Your task to perform on an android device: uninstall "Spotify" Image 0: 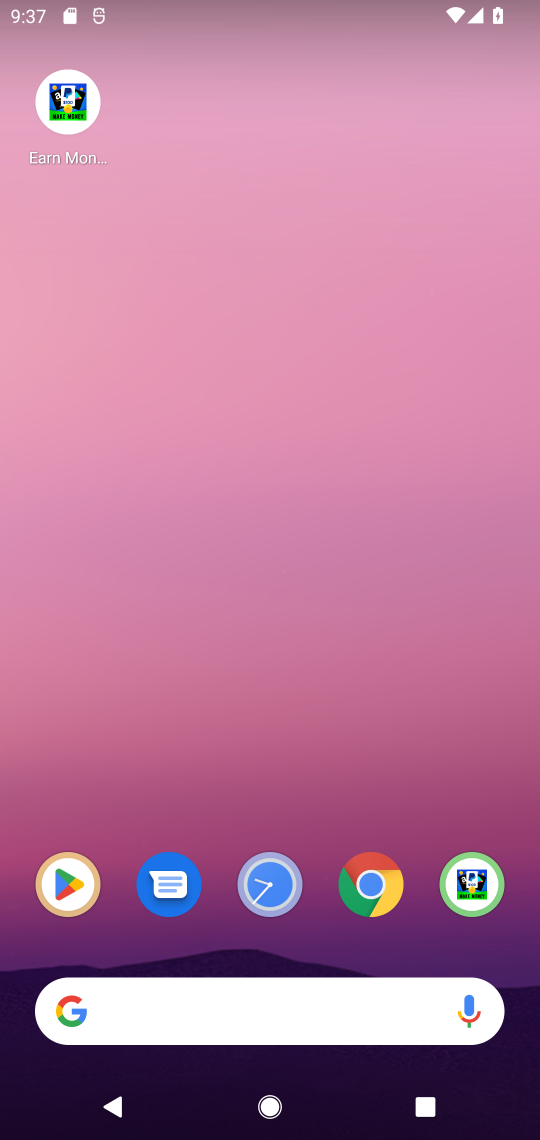
Step 0: click (70, 874)
Your task to perform on an android device: uninstall "Spotify" Image 1: 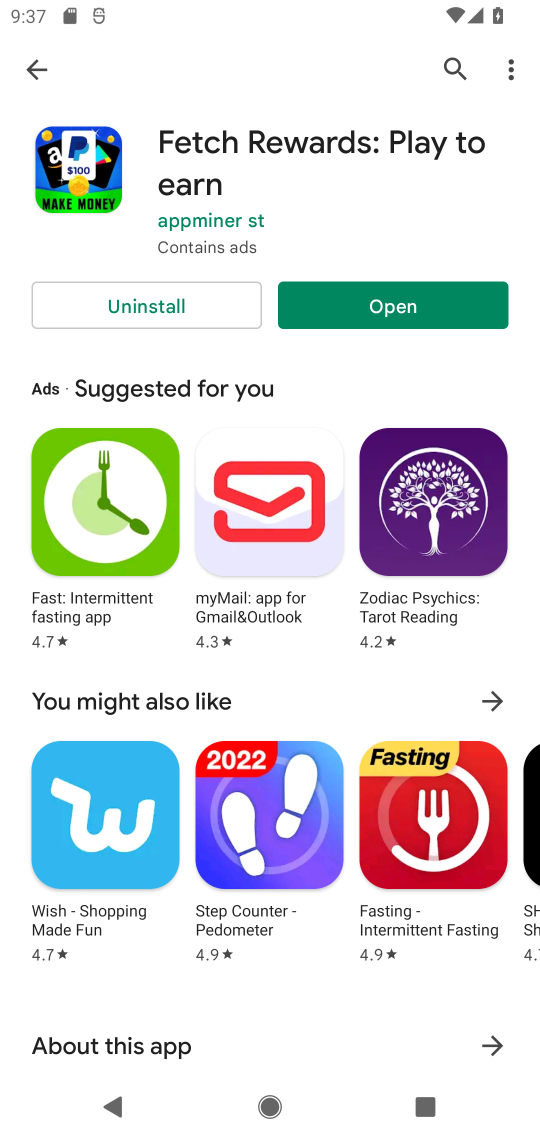
Step 1: click (35, 55)
Your task to perform on an android device: uninstall "Spotify" Image 2: 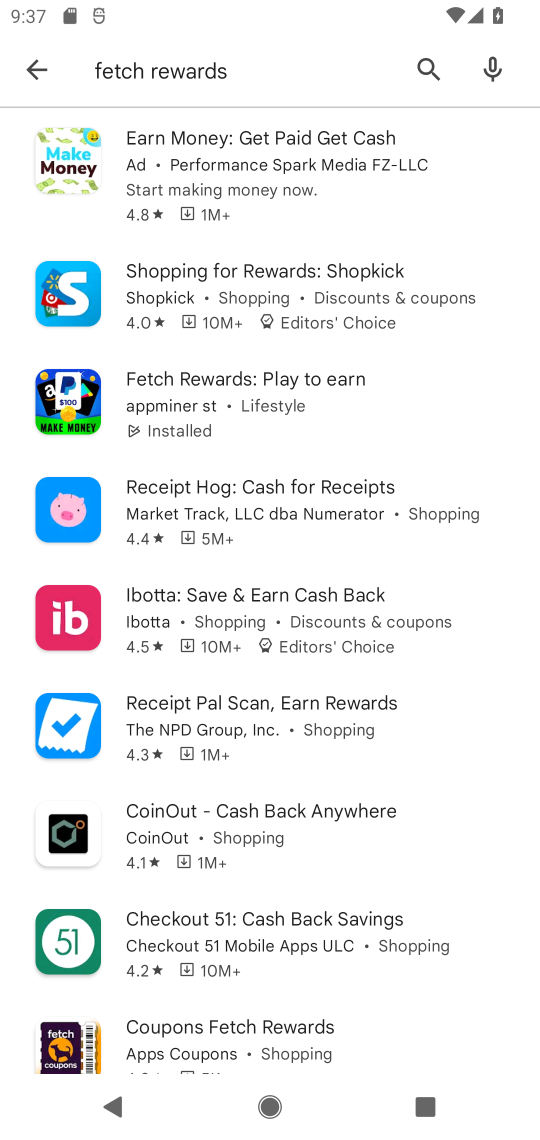
Step 2: click (214, 78)
Your task to perform on an android device: uninstall "Spotify" Image 3: 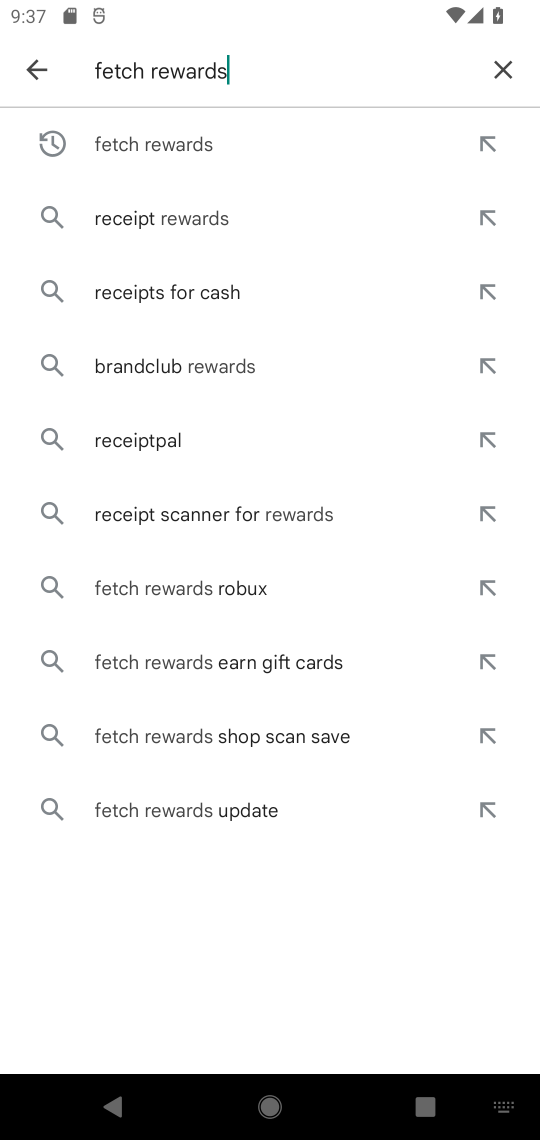
Step 3: click (518, 59)
Your task to perform on an android device: uninstall "Spotify" Image 4: 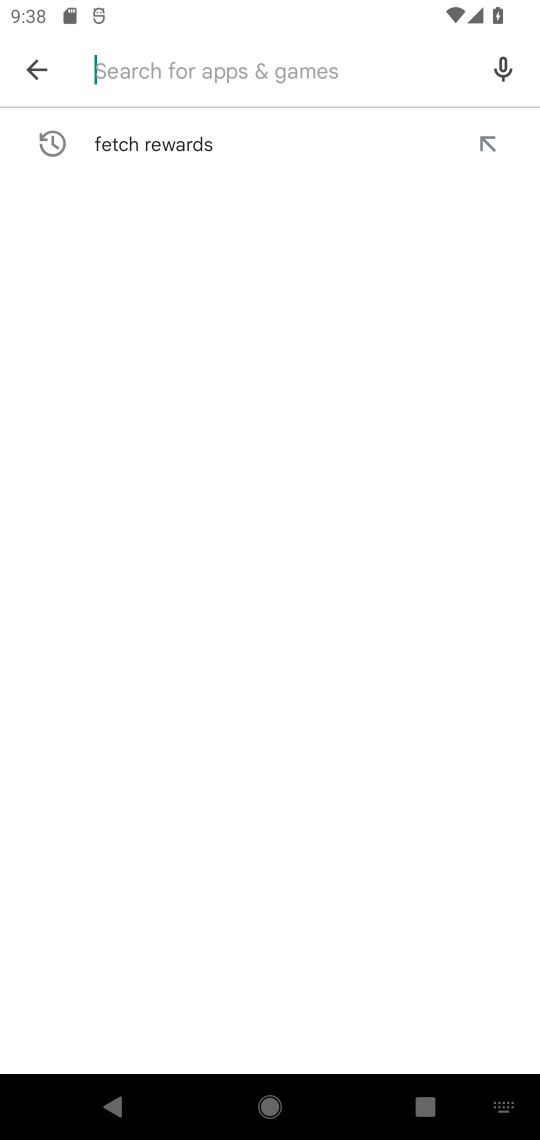
Step 4: type "spotify"
Your task to perform on an android device: uninstall "Spotify" Image 5: 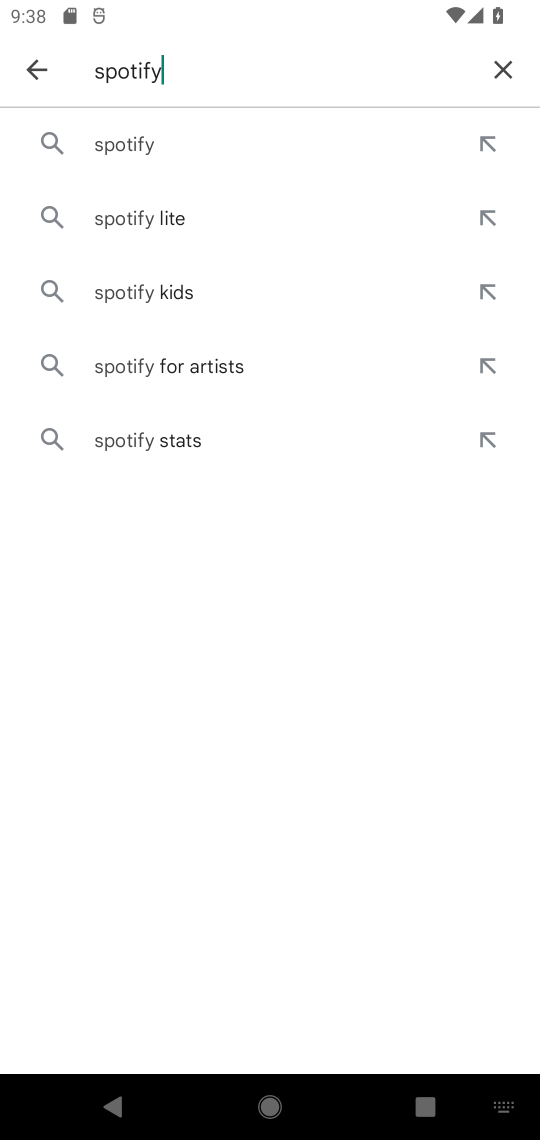
Step 5: click (144, 139)
Your task to perform on an android device: uninstall "Spotify" Image 6: 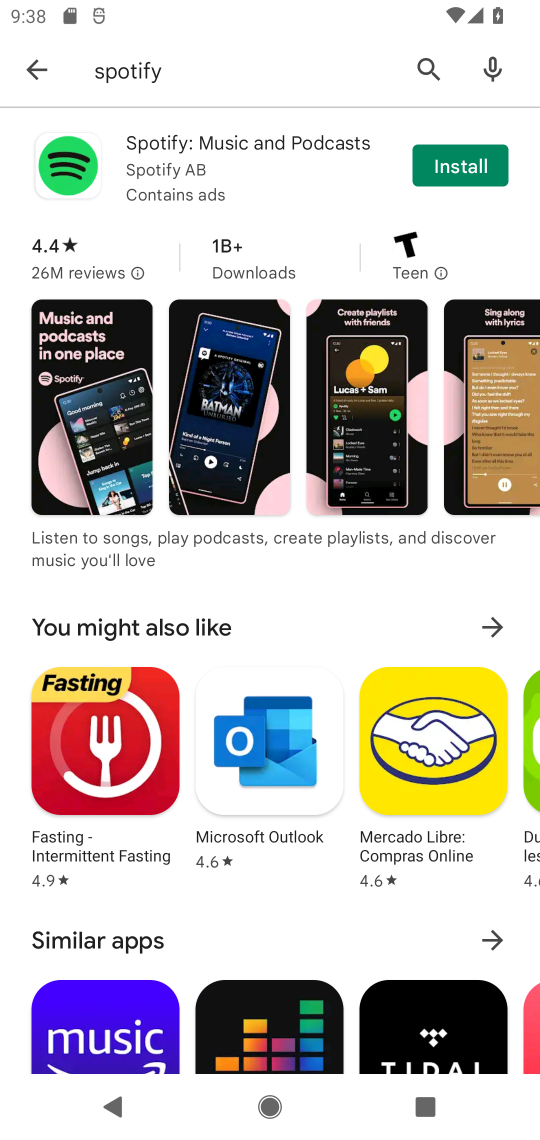
Step 6: task complete